Your task to perform on an android device: Open Chrome and go to settings Image 0: 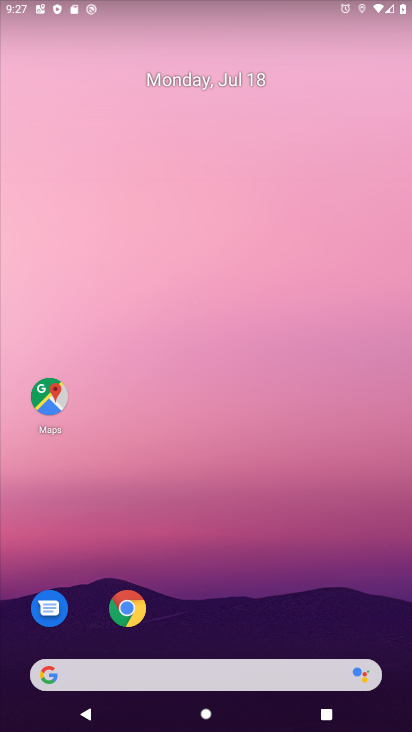
Step 0: click (130, 612)
Your task to perform on an android device: Open Chrome and go to settings Image 1: 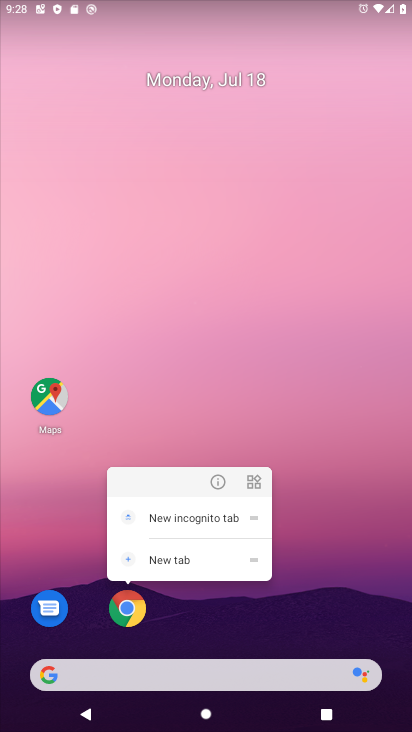
Step 1: click (124, 617)
Your task to perform on an android device: Open Chrome and go to settings Image 2: 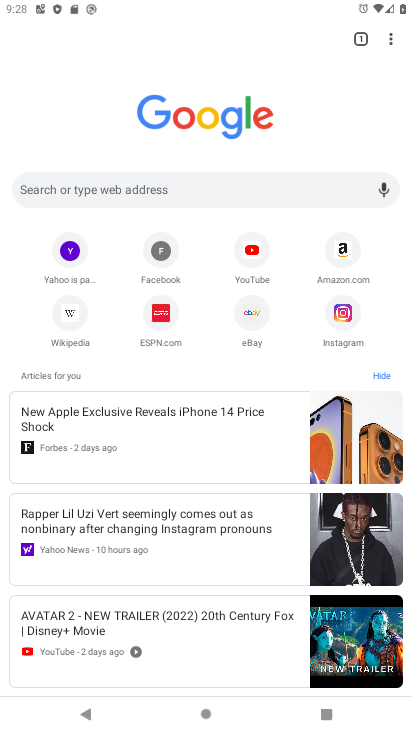
Step 2: click (389, 39)
Your task to perform on an android device: Open Chrome and go to settings Image 3: 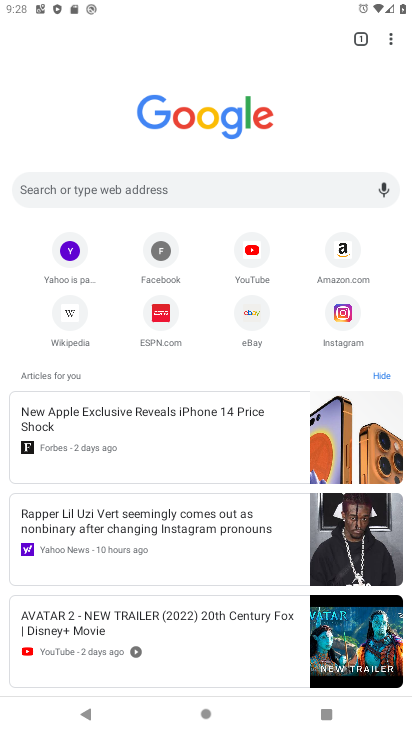
Step 3: click (393, 35)
Your task to perform on an android device: Open Chrome and go to settings Image 4: 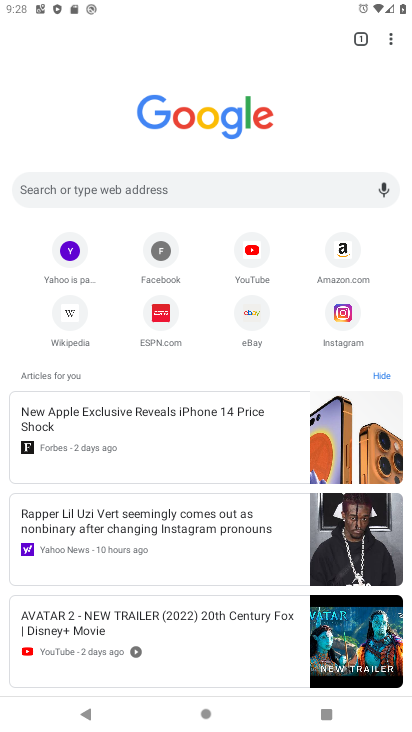
Step 4: click (395, 40)
Your task to perform on an android device: Open Chrome and go to settings Image 5: 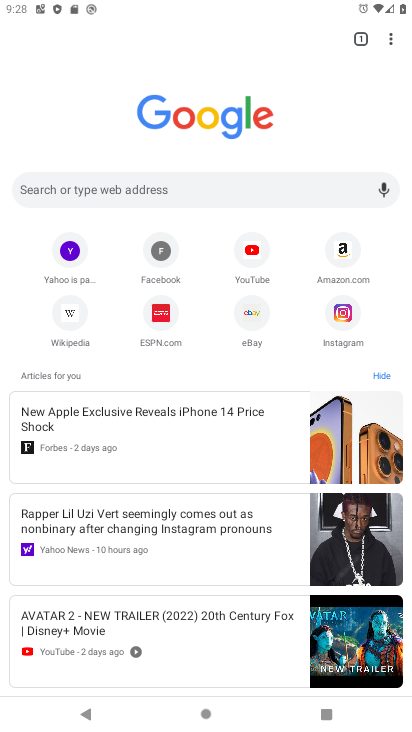
Step 5: click (389, 32)
Your task to perform on an android device: Open Chrome and go to settings Image 6: 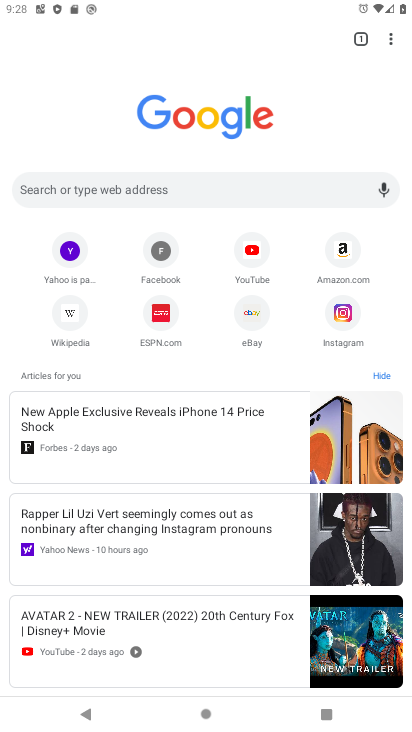
Step 6: click (391, 38)
Your task to perform on an android device: Open Chrome and go to settings Image 7: 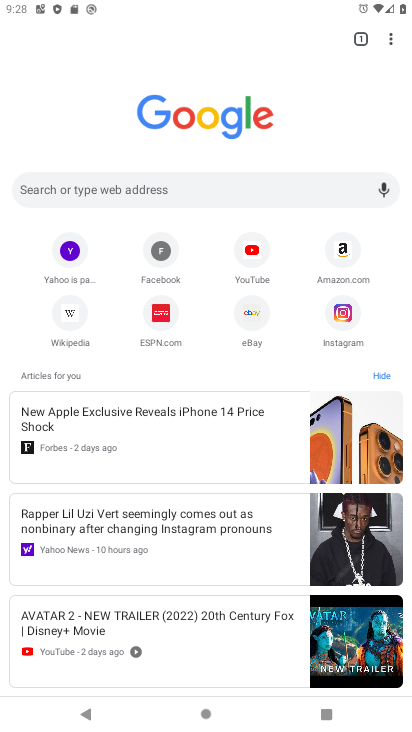
Step 7: task complete